Your task to perform on an android device: Open privacy settings Image 0: 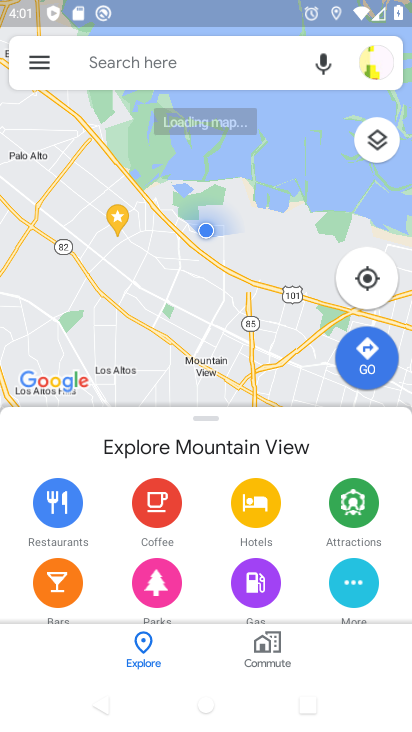
Step 0: press home button
Your task to perform on an android device: Open privacy settings Image 1: 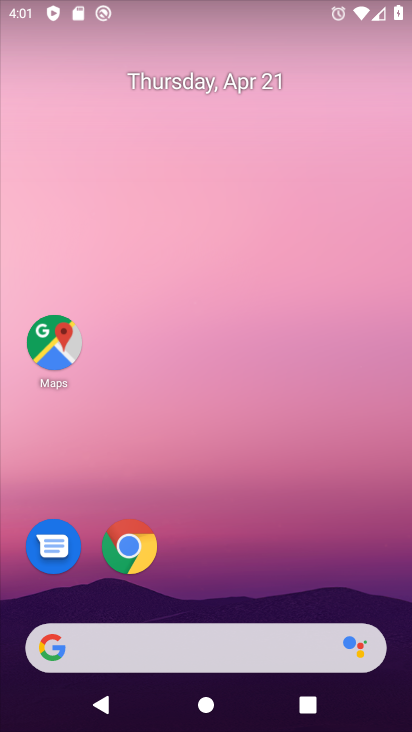
Step 1: drag from (261, 562) to (295, 72)
Your task to perform on an android device: Open privacy settings Image 2: 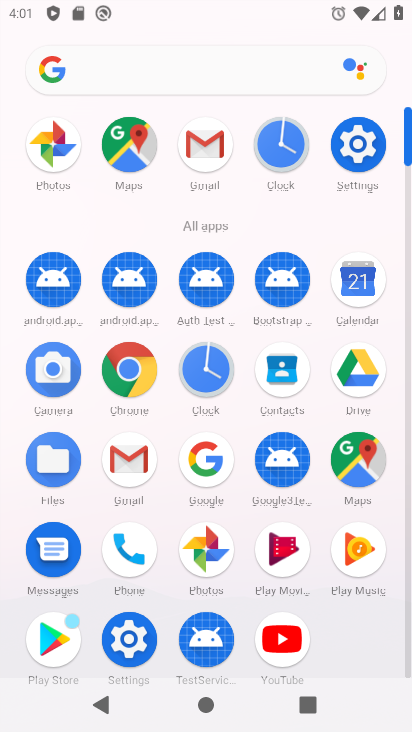
Step 2: click (131, 636)
Your task to perform on an android device: Open privacy settings Image 3: 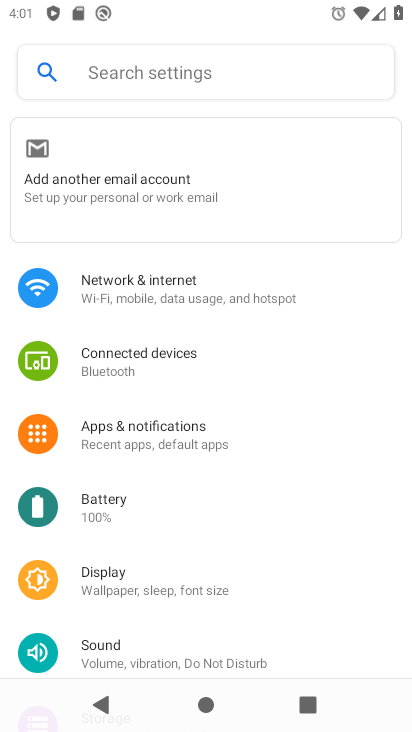
Step 3: drag from (260, 525) to (296, 251)
Your task to perform on an android device: Open privacy settings Image 4: 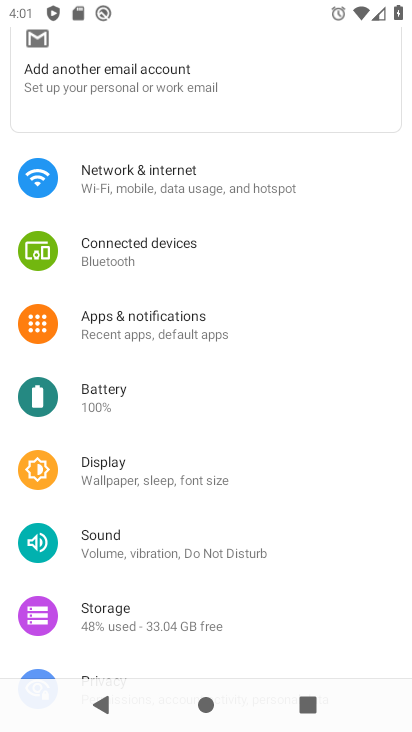
Step 4: drag from (206, 593) to (266, 315)
Your task to perform on an android device: Open privacy settings Image 5: 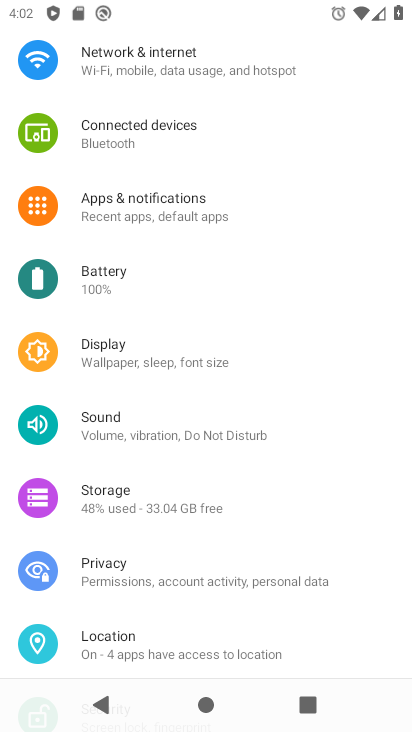
Step 5: click (127, 579)
Your task to perform on an android device: Open privacy settings Image 6: 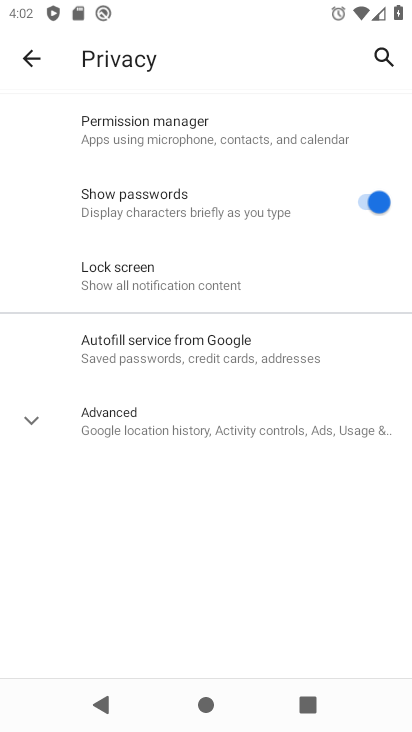
Step 6: task complete